Your task to perform on an android device: Set the phone to "Do not disturb". Image 0: 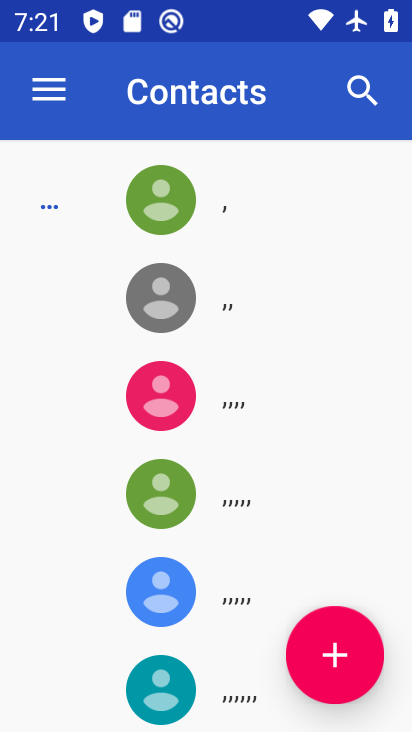
Step 0: press home button
Your task to perform on an android device: Set the phone to "Do not disturb". Image 1: 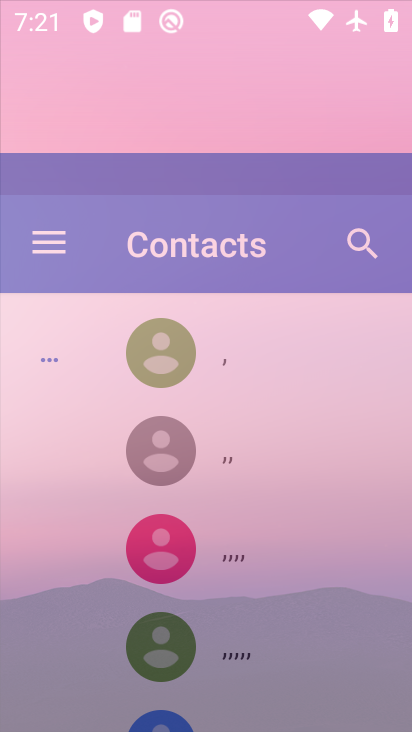
Step 1: press home button
Your task to perform on an android device: Set the phone to "Do not disturb". Image 2: 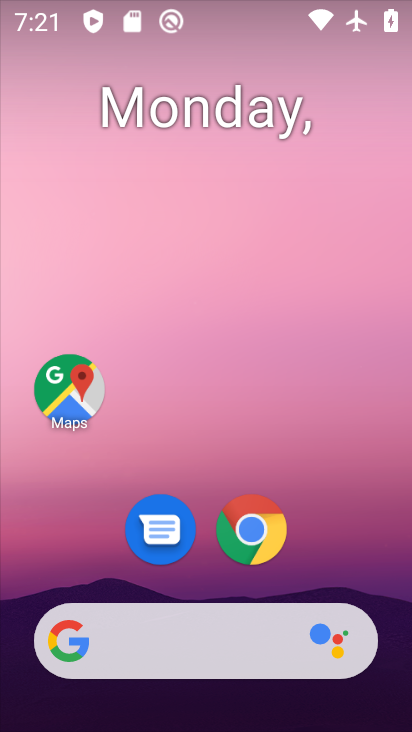
Step 2: drag from (285, 438) to (167, 3)
Your task to perform on an android device: Set the phone to "Do not disturb". Image 3: 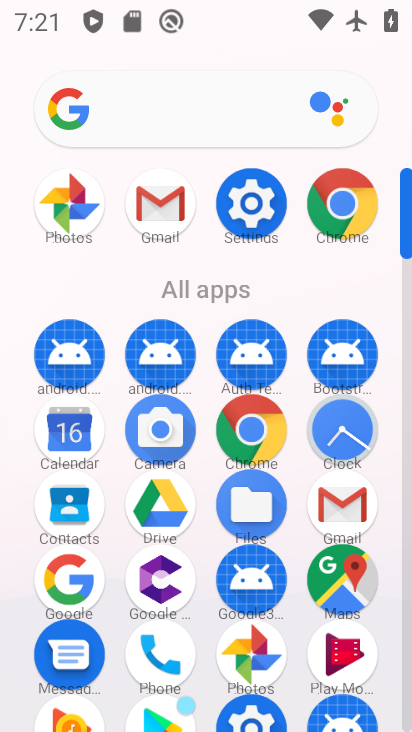
Step 3: click (252, 194)
Your task to perform on an android device: Set the phone to "Do not disturb". Image 4: 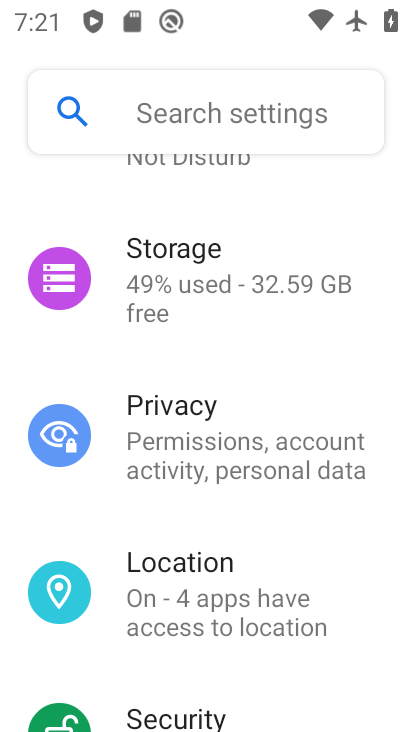
Step 4: drag from (310, 595) to (323, 642)
Your task to perform on an android device: Set the phone to "Do not disturb". Image 5: 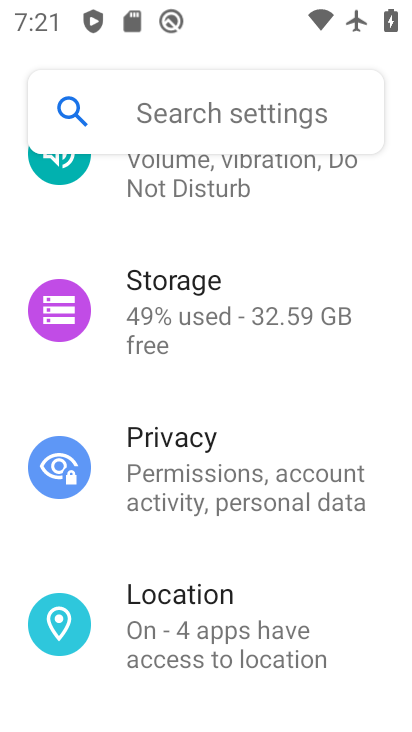
Step 5: drag from (225, 236) to (252, 583)
Your task to perform on an android device: Set the phone to "Do not disturb". Image 6: 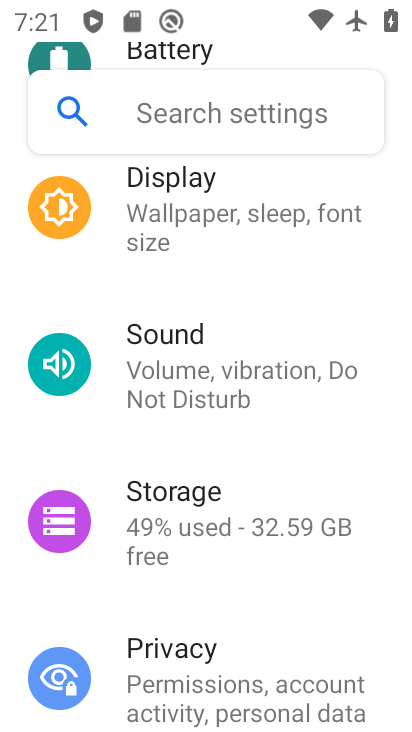
Step 6: click (186, 347)
Your task to perform on an android device: Set the phone to "Do not disturb". Image 7: 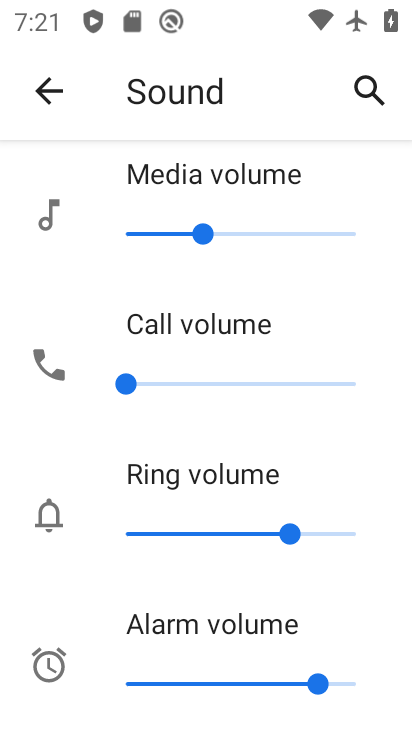
Step 7: drag from (336, 448) to (306, 187)
Your task to perform on an android device: Set the phone to "Do not disturb". Image 8: 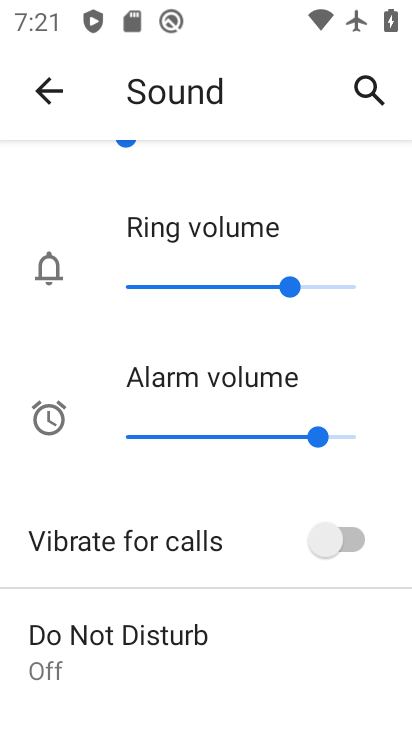
Step 8: drag from (250, 608) to (200, 254)
Your task to perform on an android device: Set the phone to "Do not disturb". Image 9: 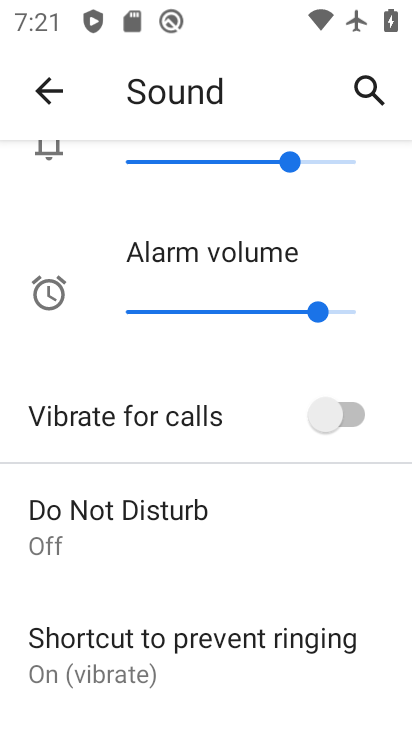
Step 9: click (82, 500)
Your task to perform on an android device: Set the phone to "Do not disturb". Image 10: 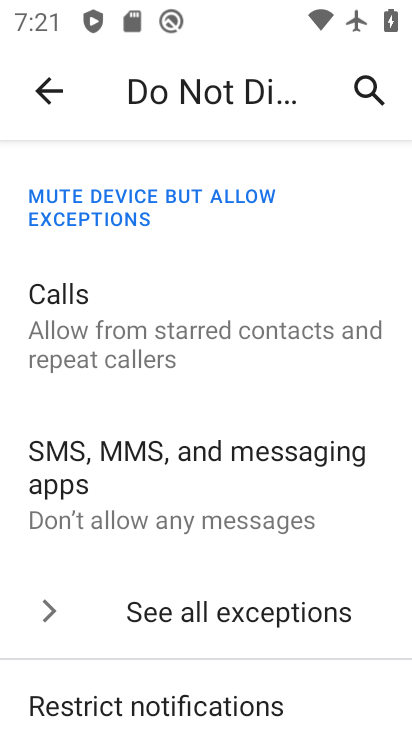
Step 10: drag from (295, 539) to (251, 282)
Your task to perform on an android device: Set the phone to "Do not disturb". Image 11: 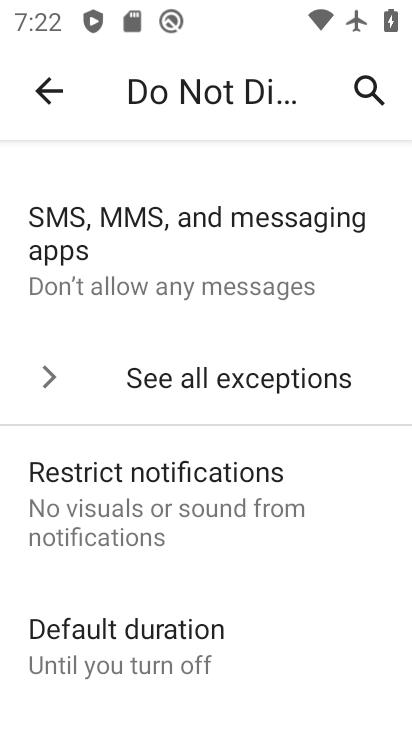
Step 11: drag from (232, 624) to (163, 393)
Your task to perform on an android device: Set the phone to "Do not disturb". Image 12: 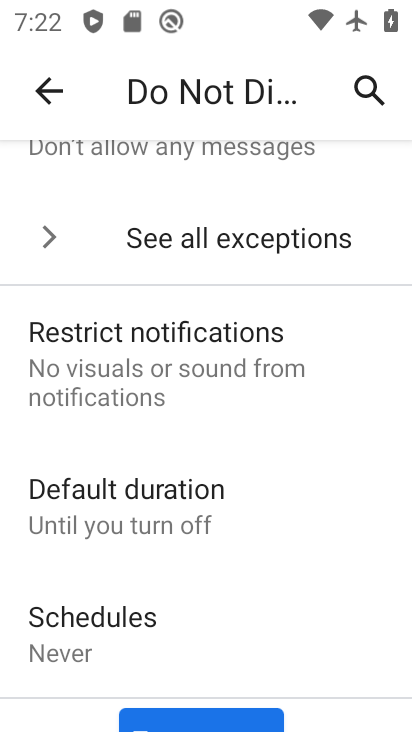
Step 12: drag from (239, 587) to (146, 183)
Your task to perform on an android device: Set the phone to "Do not disturb". Image 13: 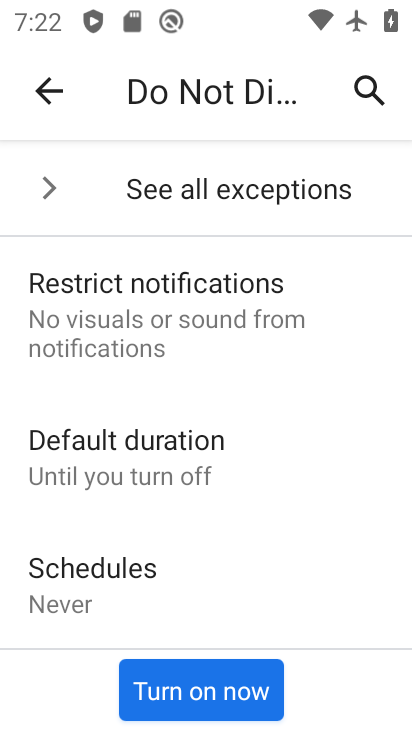
Step 13: click (186, 688)
Your task to perform on an android device: Set the phone to "Do not disturb". Image 14: 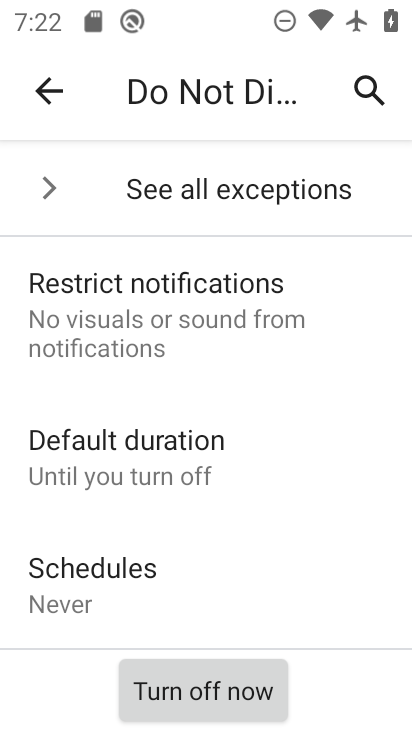
Step 14: task complete